Your task to perform on an android device: Search for sushi restaurants on Maps Image 0: 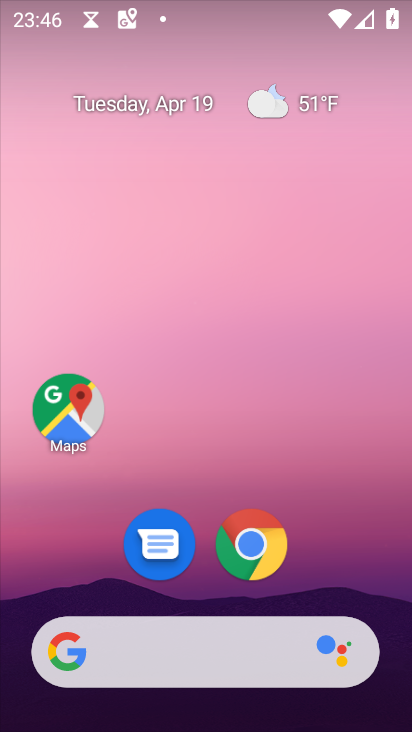
Step 0: drag from (320, 561) to (405, 5)
Your task to perform on an android device: Search for sushi restaurants on Maps Image 1: 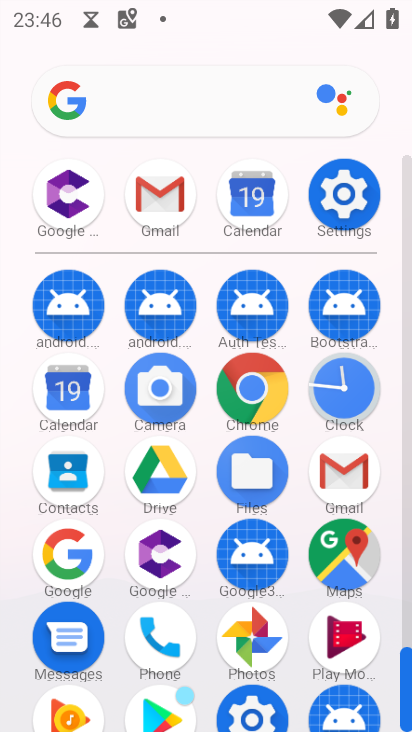
Step 1: click (340, 557)
Your task to perform on an android device: Search for sushi restaurants on Maps Image 2: 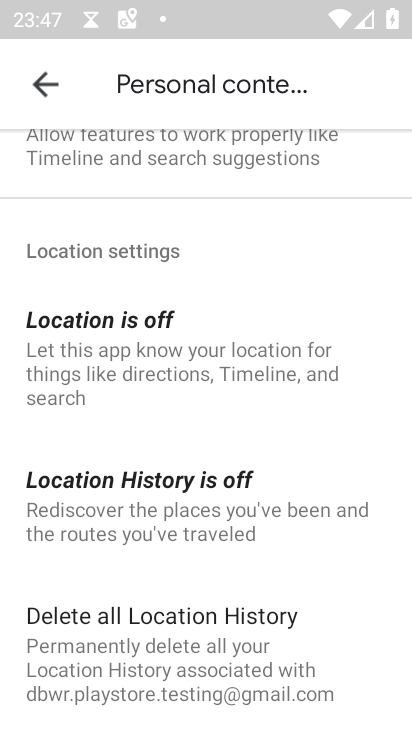
Step 2: click (36, 91)
Your task to perform on an android device: Search for sushi restaurants on Maps Image 3: 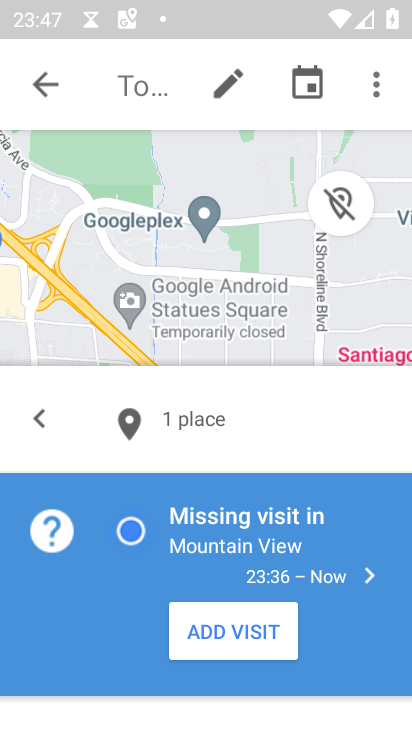
Step 3: click (39, 83)
Your task to perform on an android device: Search for sushi restaurants on Maps Image 4: 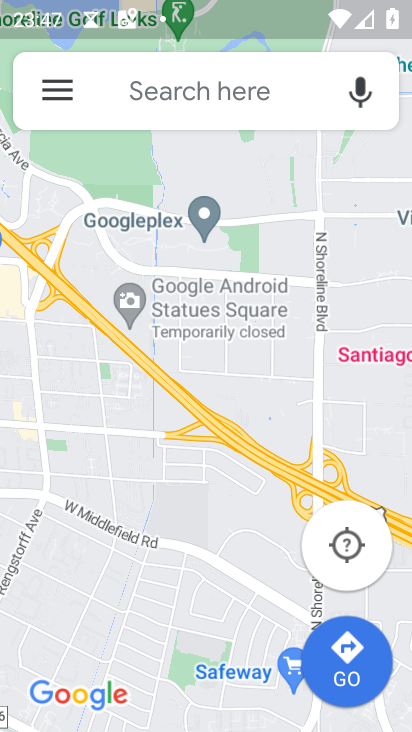
Step 4: click (120, 88)
Your task to perform on an android device: Search for sushi restaurants on Maps Image 5: 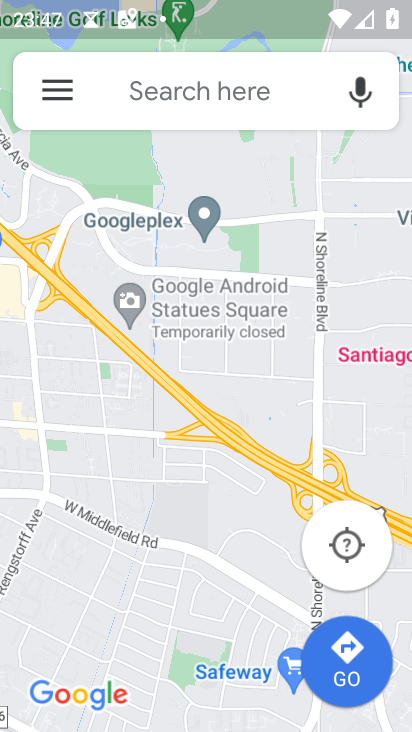
Step 5: click (173, 105)
Your task to perform on an android device: Search for sushi restaurants on Maps Image 6: 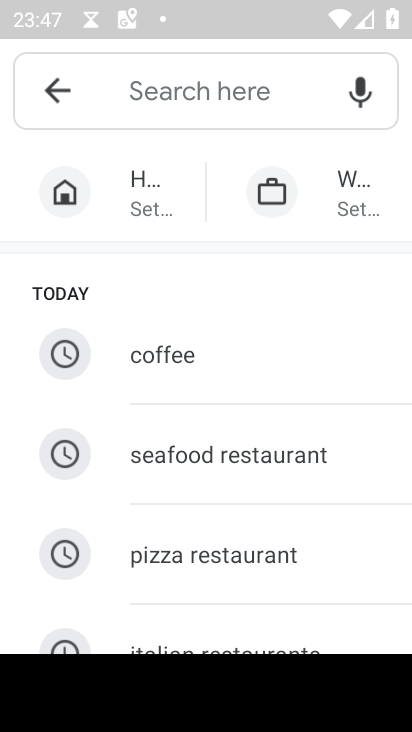
Step 6: type "sushi restaurants"
Your task to perform on an android device: Search for sushi restaurants on Maps Image 7: 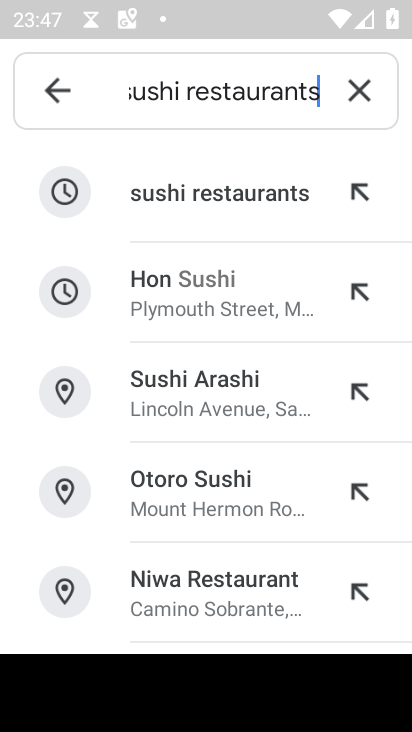
Step 7: click (182, 206)
Your task to perform on an android device: Search for sushi restaurants on Maps Image 8: 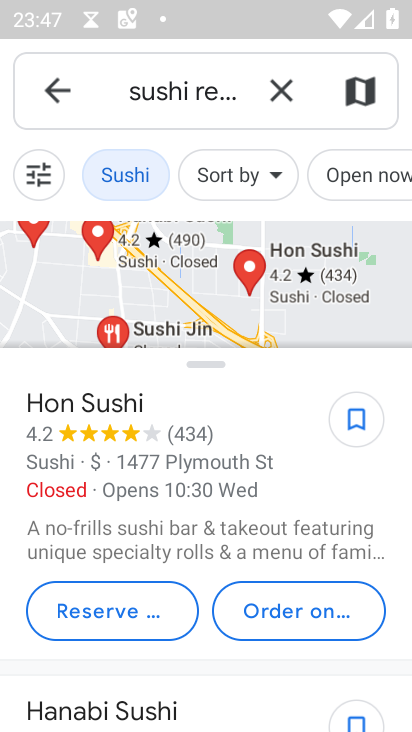
Step 8: task complete